Your task to perform on an android device: Go to Google maps Image 0: 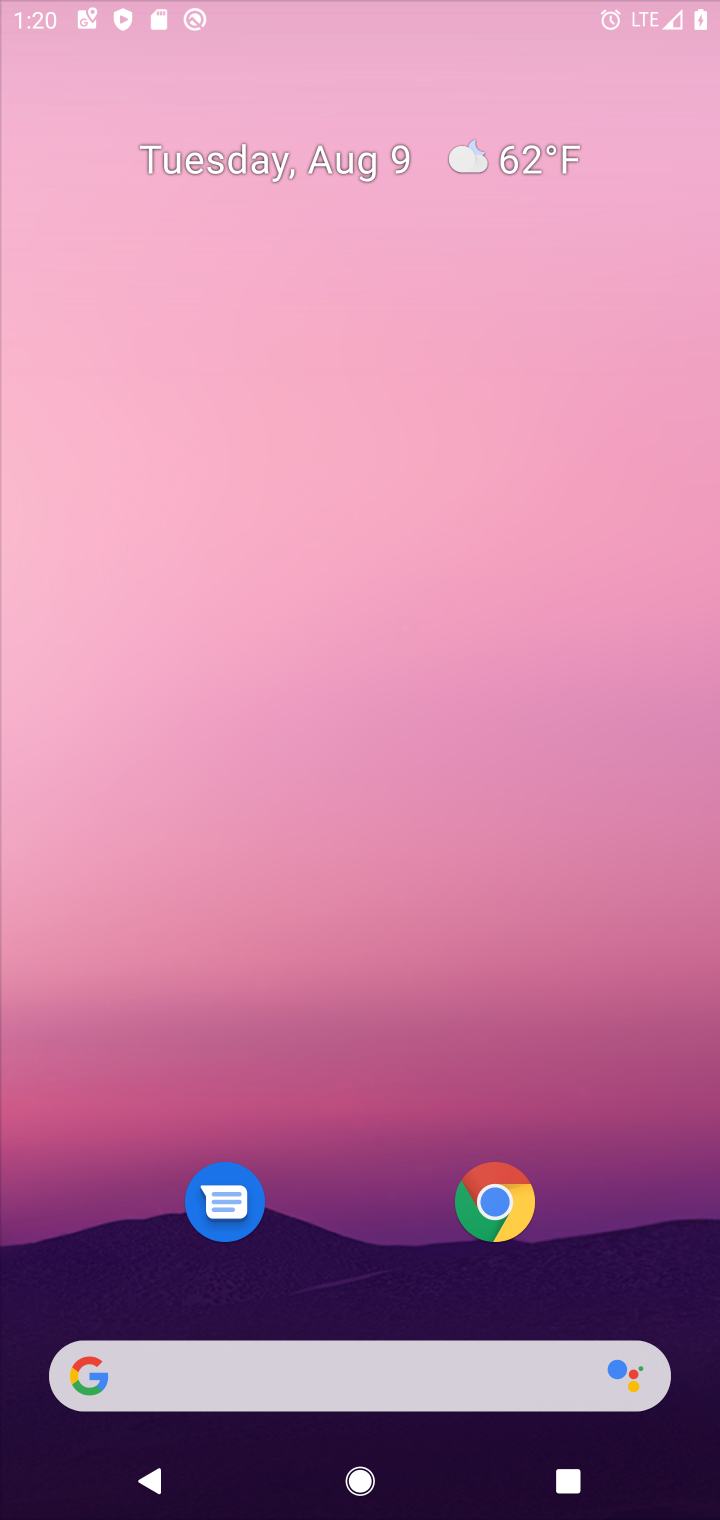
Step 0: press back button
Your task to perform on an android device: Go to Google maps Image 1: 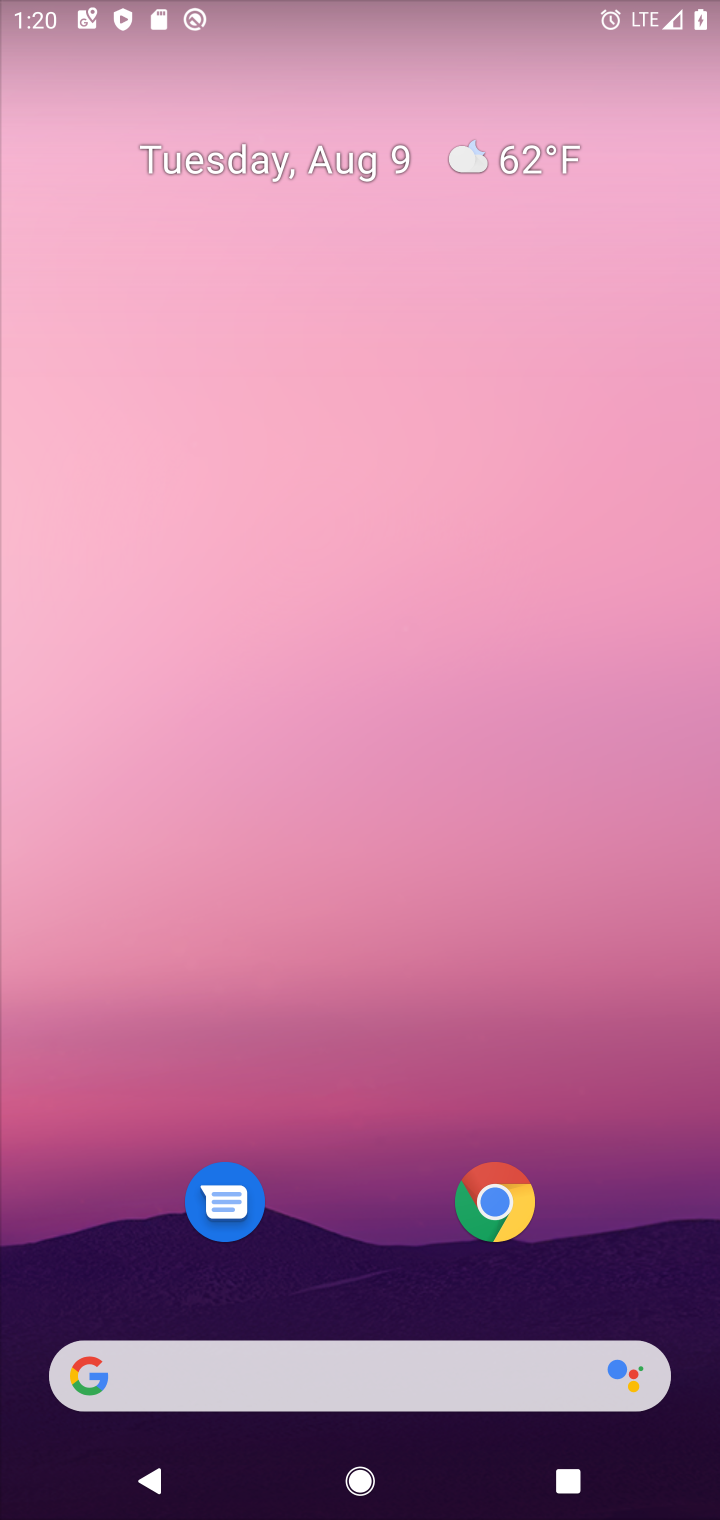
Step 1: drag from (338, 941) to (281, 257)
Your task to perform on an android device: Go to Google maps Image 2: 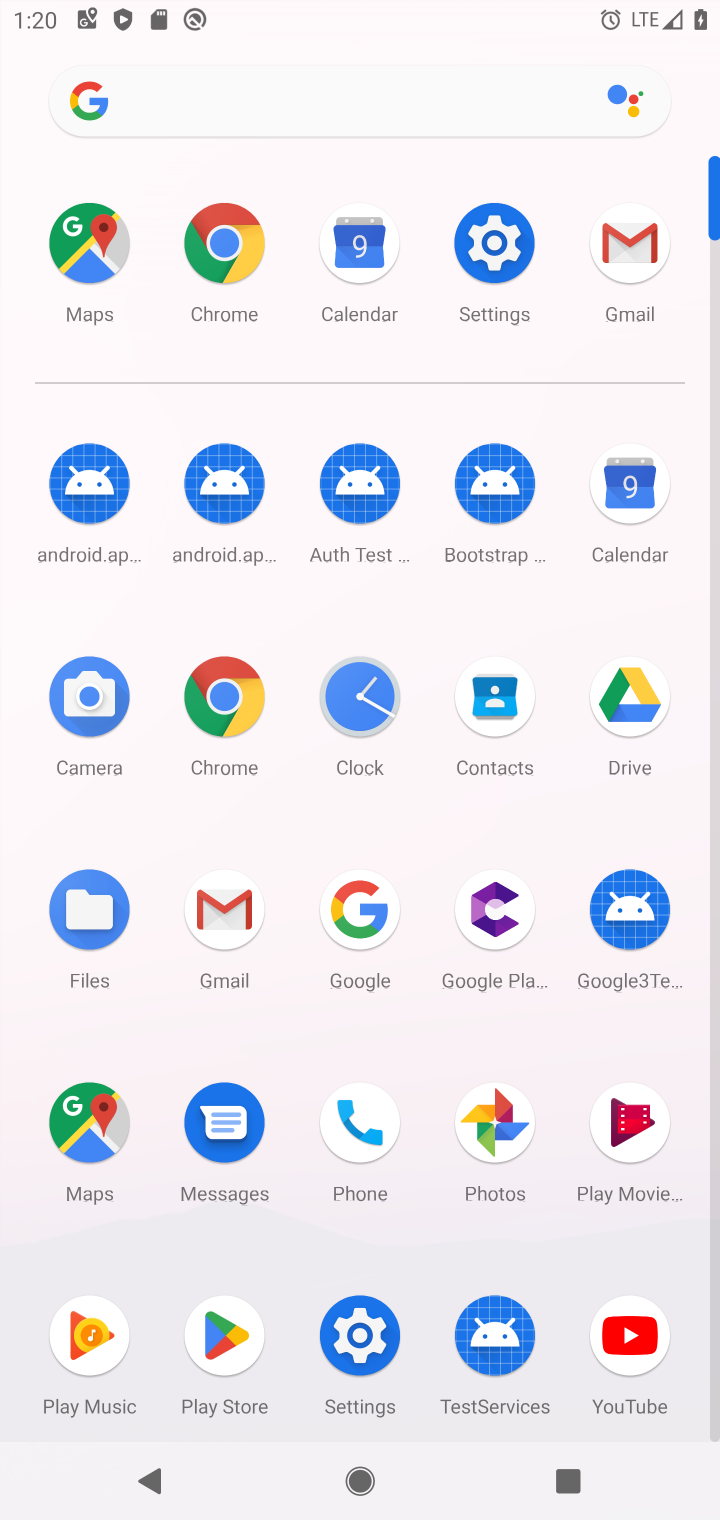
Step 2: click (74, 259)
Your task to perform on an android device: Go to Google maps Image 3: 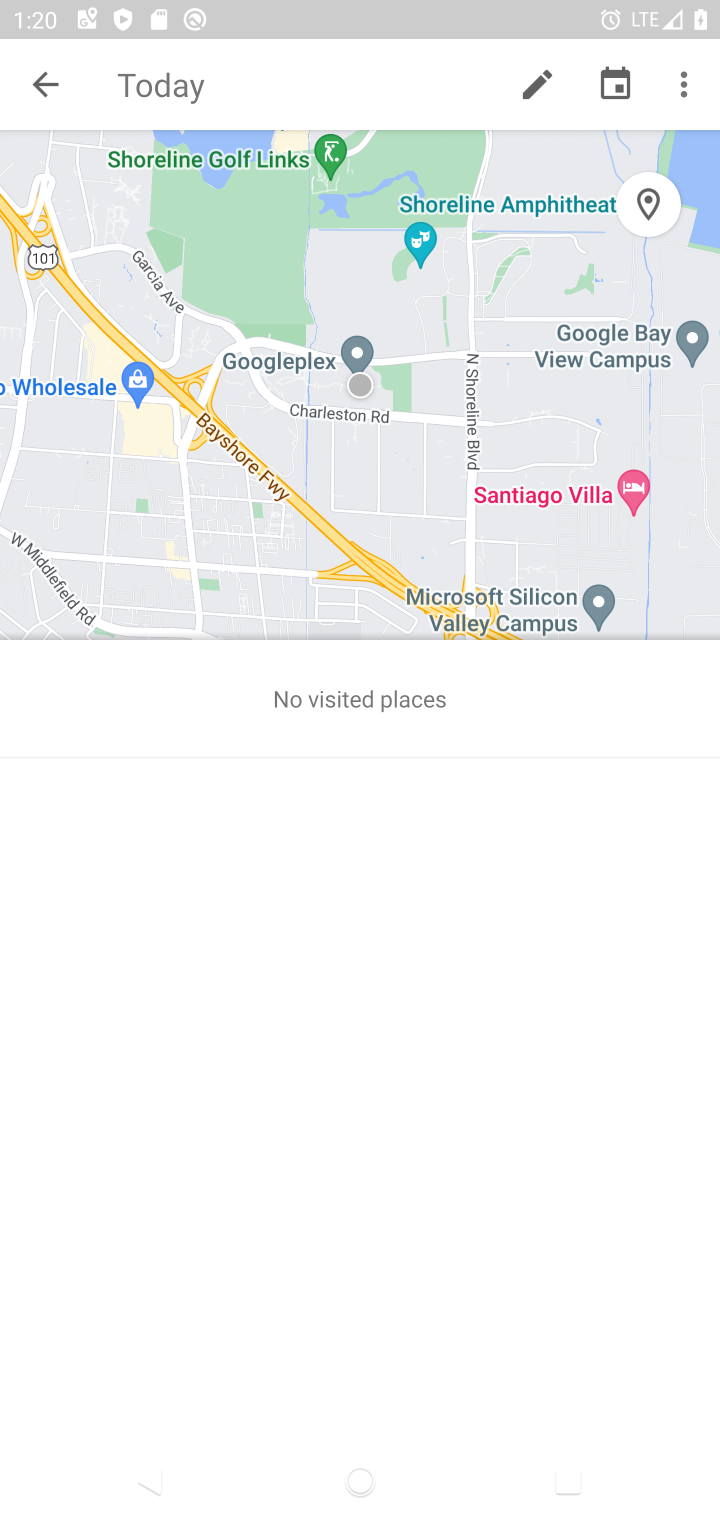
Step 3: task complete